Your task to perform on an android device: Set the phone to "Do not disturb". Image 0: 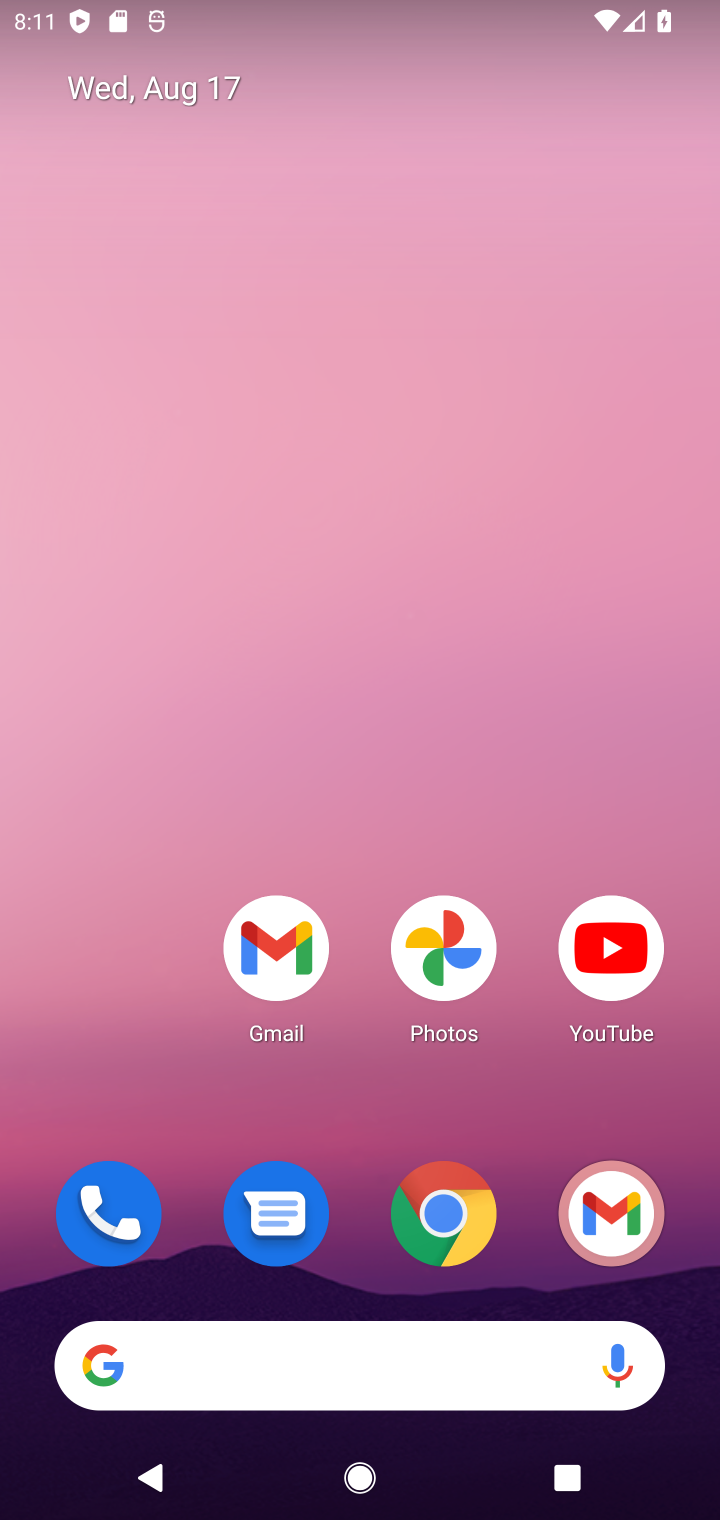
Step 0: drag from (370, 1284) to (331, 46)
Your task to perform on an android device: Set the phone to "Do not disturb". Image 1: 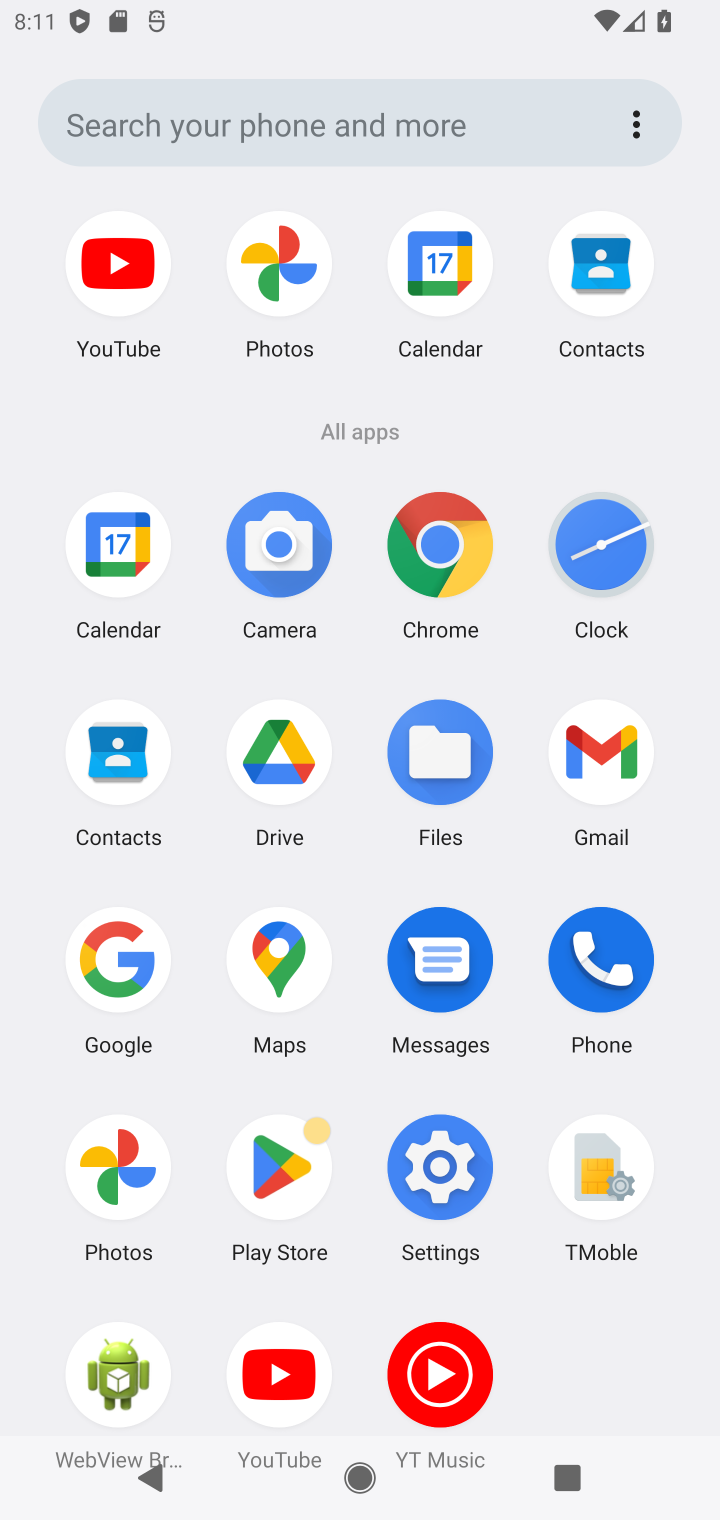
Step 1: click (443, 1161)
Your task to perform on an android device: Set the phone to "Do not disturb". Image 2: 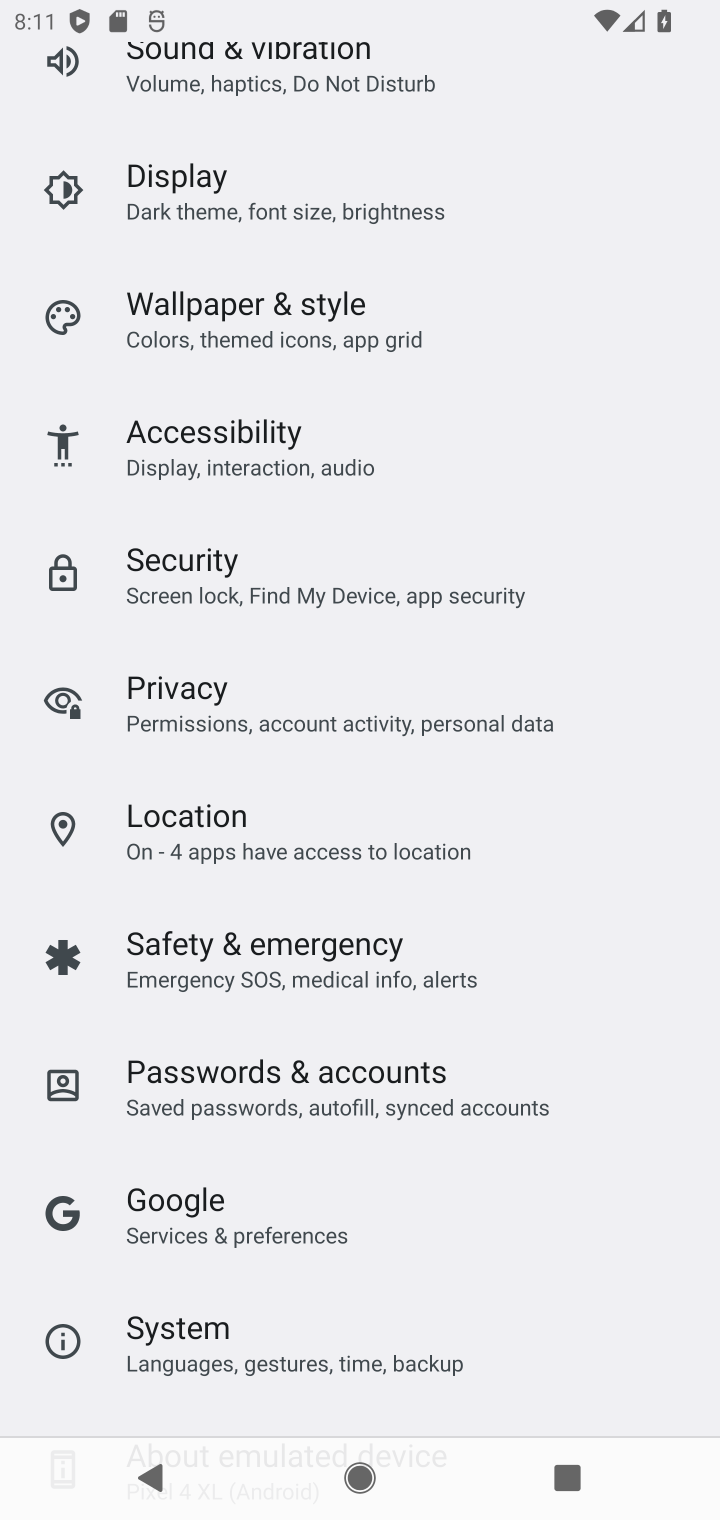
Step 2: click (356, 83)
Your task to perform on an android device: Set the phone to "Do not disturb". Image 3: 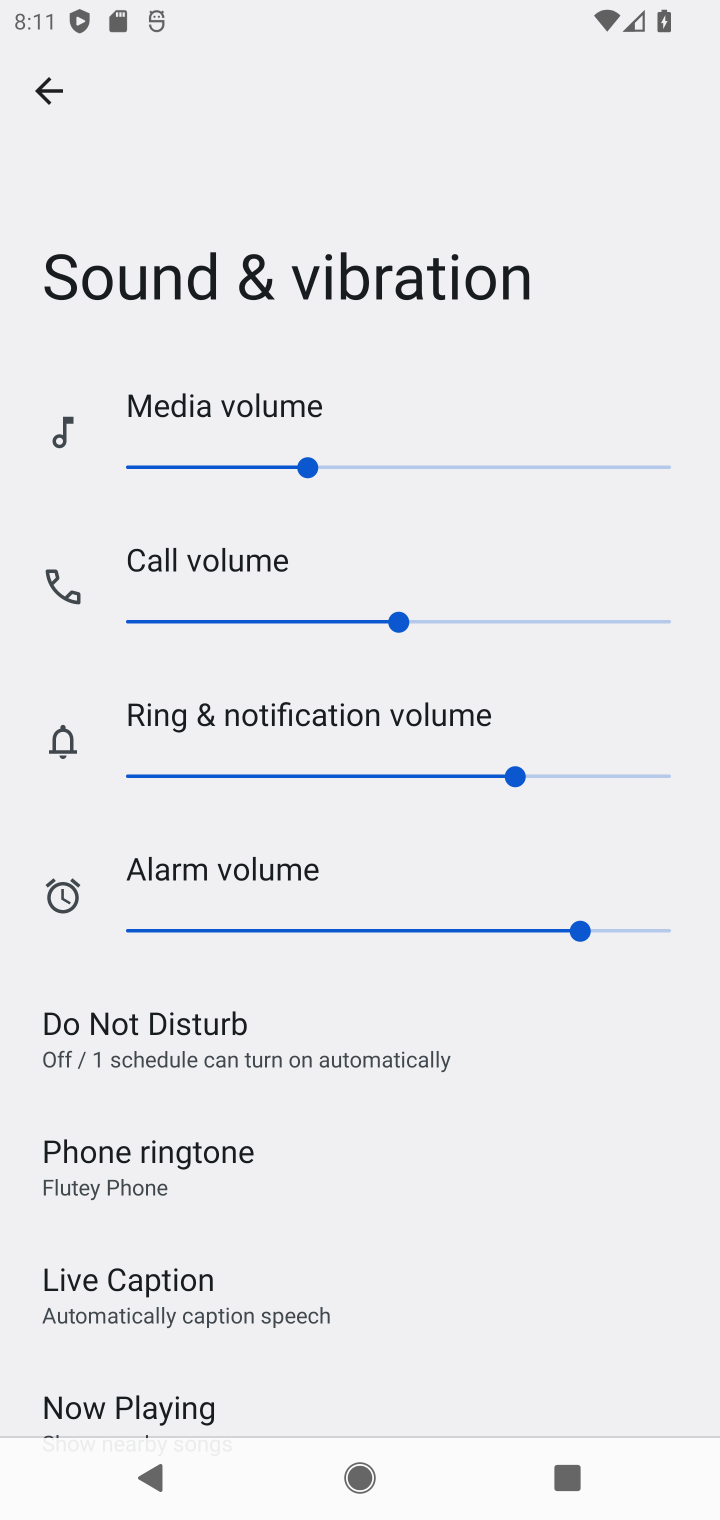
Step 3: click (393, 1053)
Your task to perform on an android device: Set the phone to "Do not disturb". Image 4: 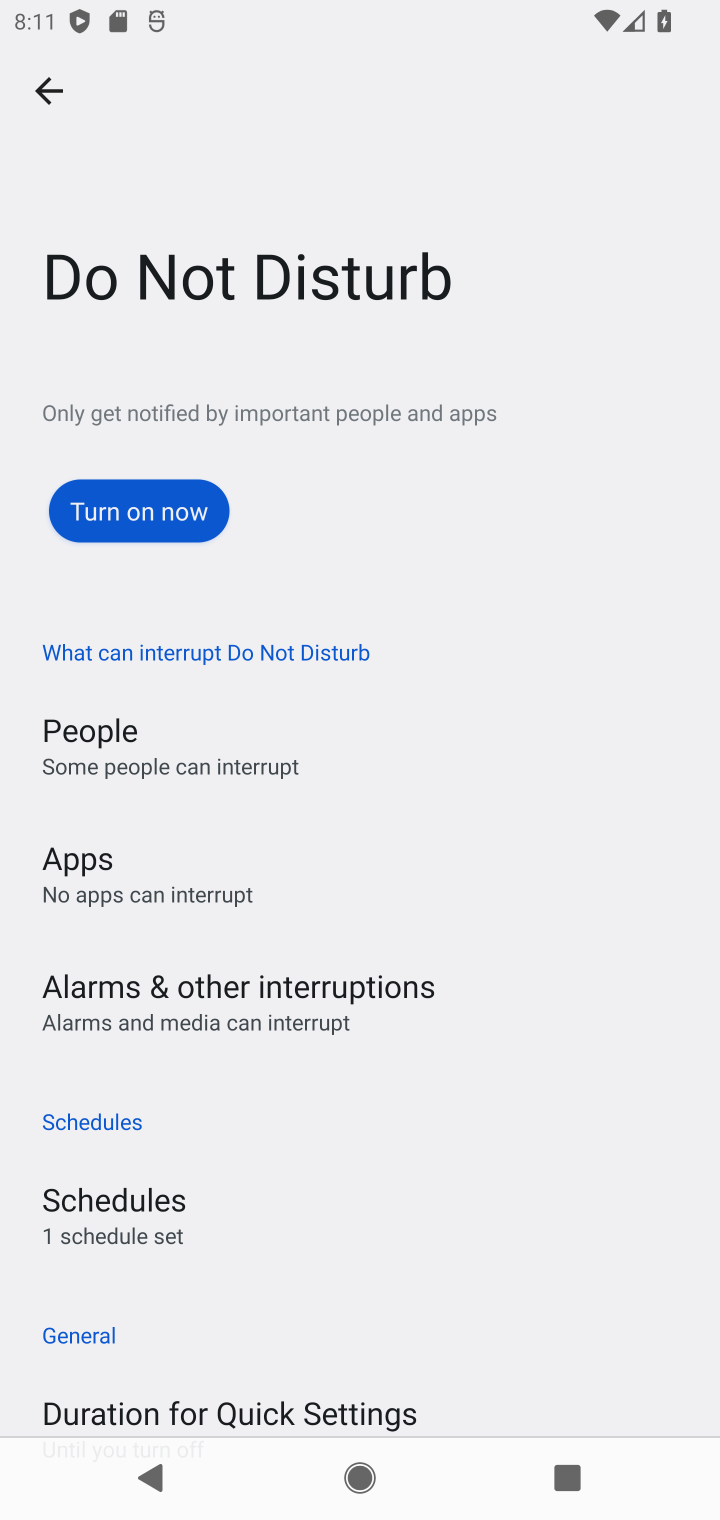
Step 4: click (182, 498)
Your task to perform on an android device: Set the phone to "Do not disturb". Image 5: 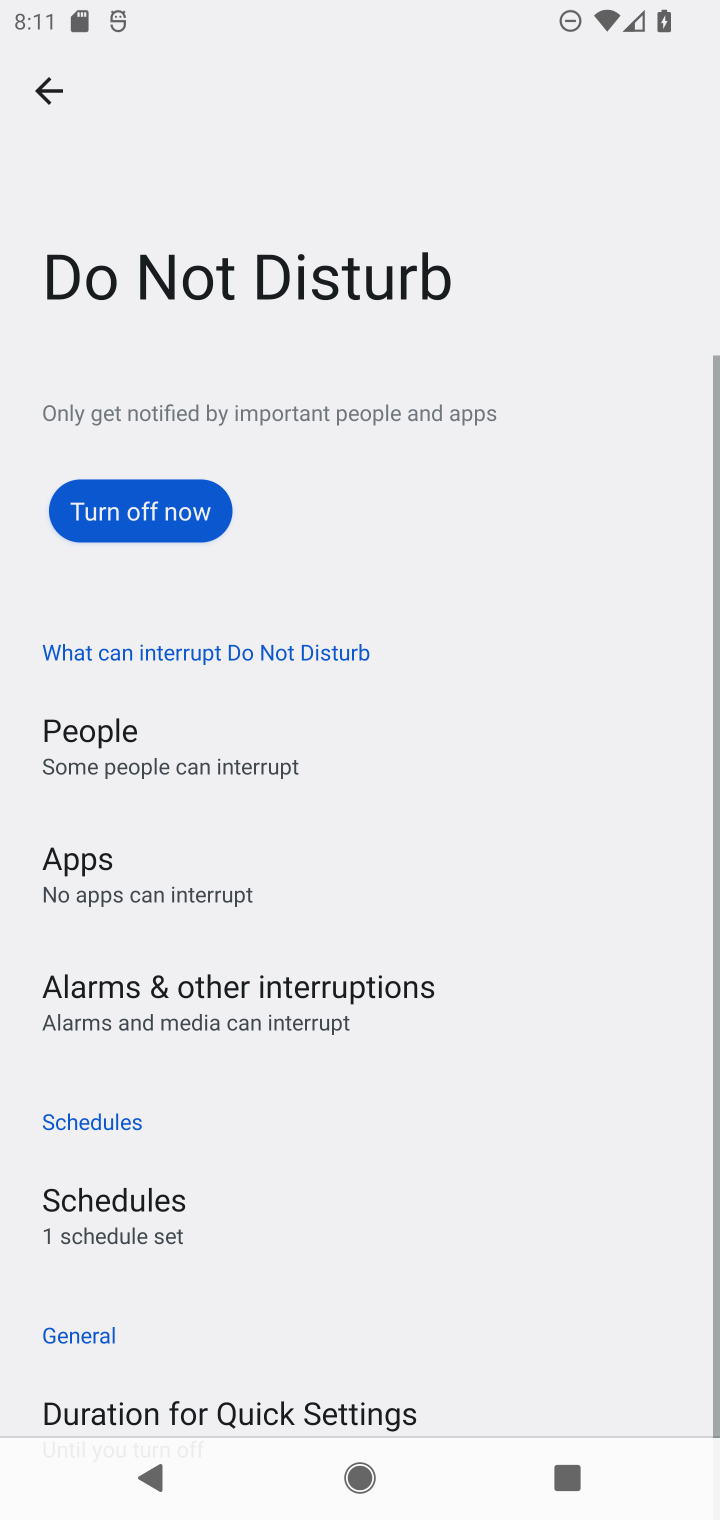
Step 5: task complete